Your task to perform on an android device: see creations saved in the google photos Image 0: 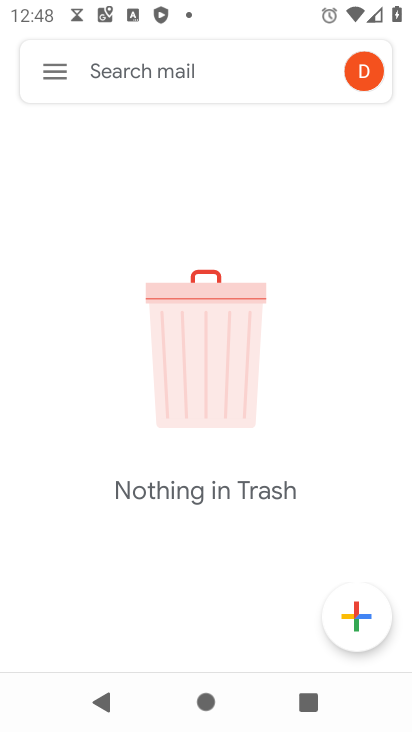
Step 0: press home button
Your task to perform on an android device: see creations saved in the google photos Image 1: 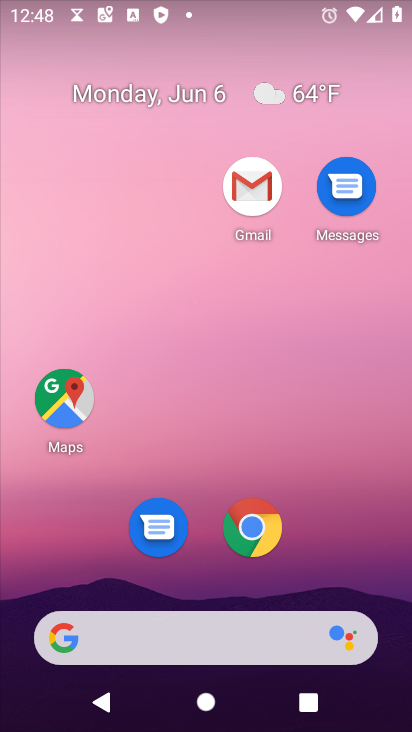
Step 1: drag from (328, 535) to (409, 298)
Your task to perform on an android device: see creations saved in the google photos Image 2: 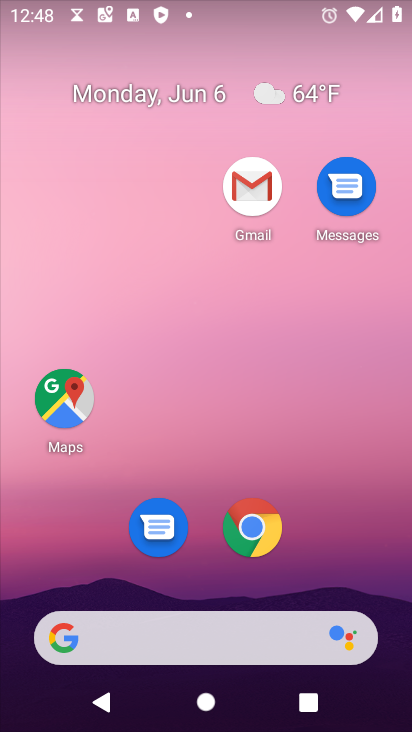
Step 2: drag from (332, 580) to (179, 12)
Your task to perform on an android device: see creations saved in the google photos Image 3: 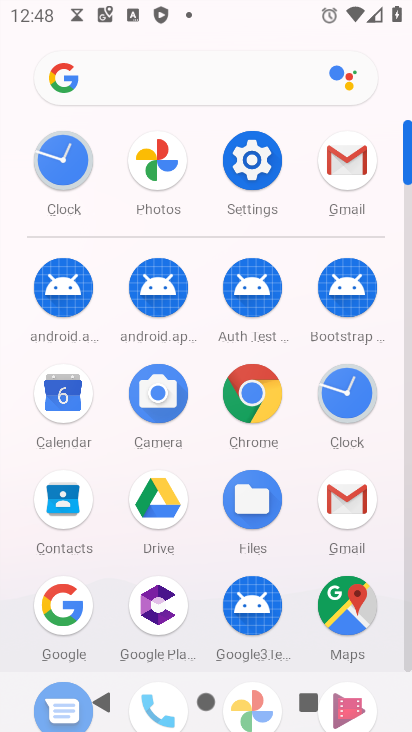
Step 3: drag from (186, 556) to (155, 195)
Your task to perform on an android device: see creations saved in the google photos Image 4: 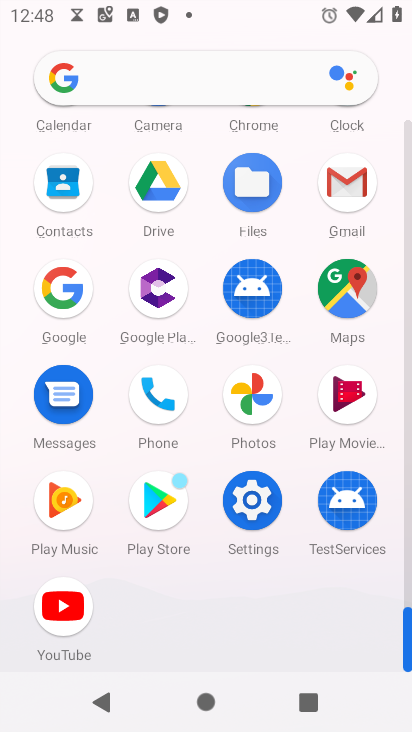
Step 4: click (245, 401)
Your task to perform on an android device: see creations saved in the google photos Image 5: 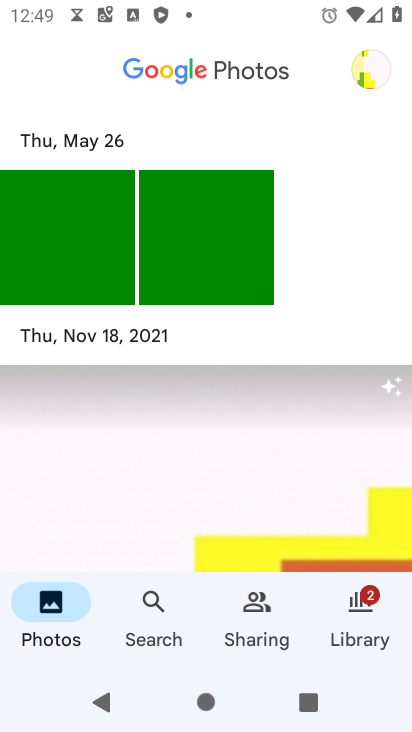
Step 5: press home button
Your task to perform on an android device: see creations saved in the google photos Image 6: 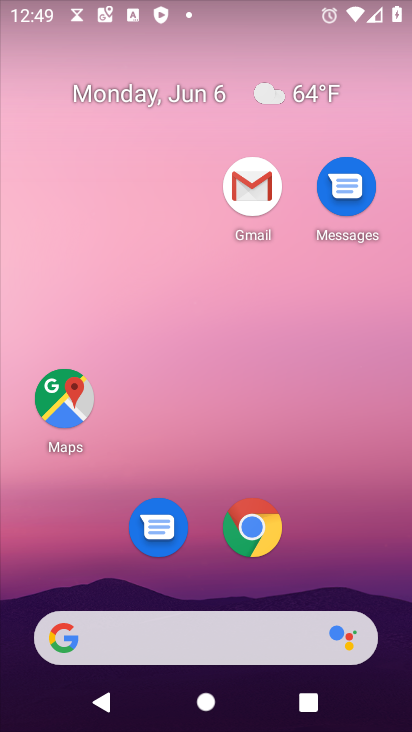
Step 6: drag from (325, 540) to (195, 18)
Your task to perform on an android device: see creations saved in the google photos Image 7: 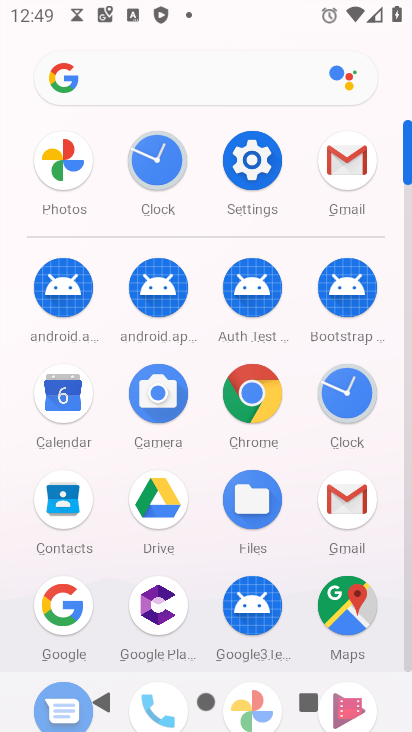
Step 7: drag from (188, 576) to (202, 219)
Your task to perform on an android device: see creations saved in the google photos Image 8: 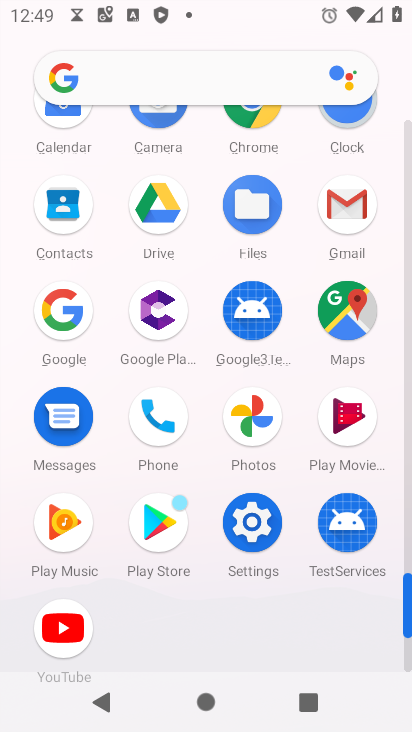
Step 8: click (257, 420)
Your task to perform on an android device: see creations saved in the google photos Image 9: 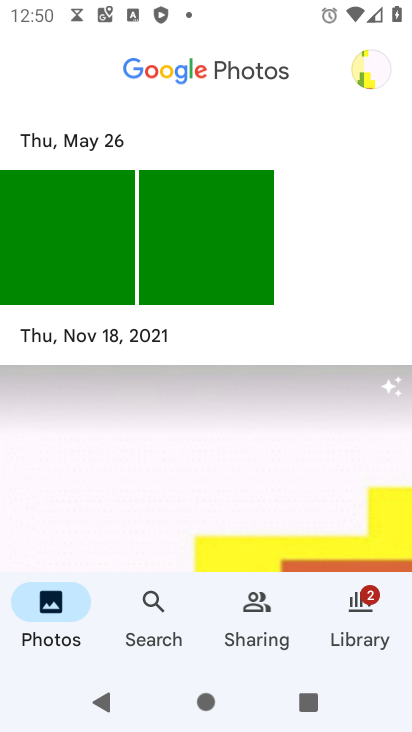
Step 9: click (162, 618)
Your task to perform on an android device: see creations saved in the google photos Image 10: 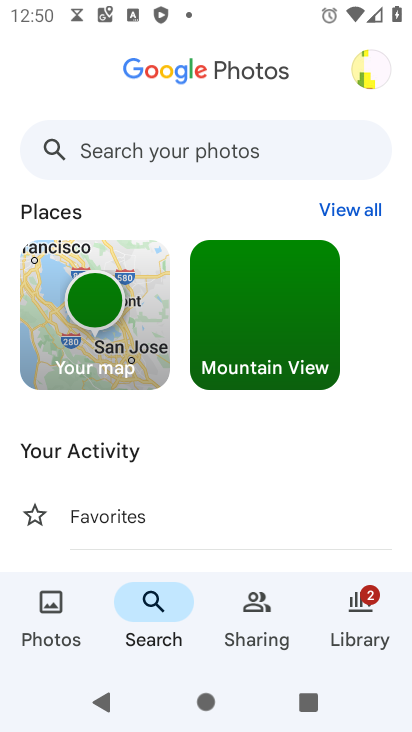
Step 10: drag from (277, 486) to (222, 38)
Your task to perform on an android device: see creations saved in the google photos Image 11: 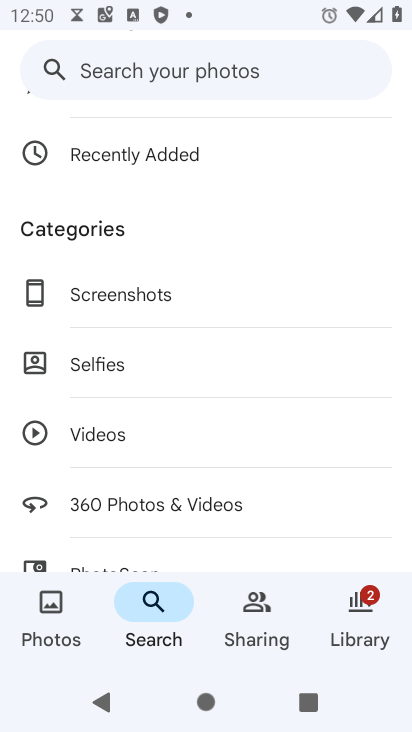
Step 11: drag from (226, 433) to (273, 81)
Your task to perform on an android device: see creations saved in the google photos Image 12: 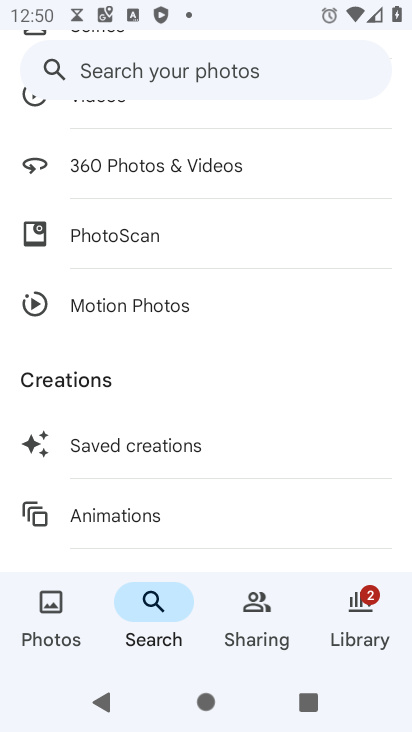
Step 12: click (183, 454)
Your task to perform on an android device: see creations saved in the google photos Image 13: 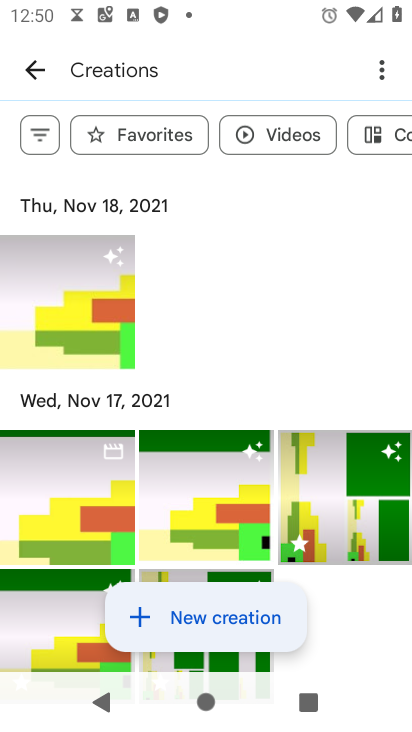
Step 13: task complete